Your task to perform on an android device: toggle javascript in the chrome app Image 0: 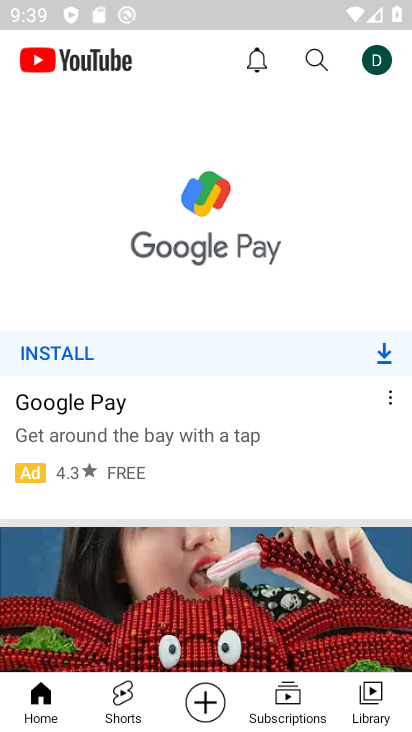
Step 0: press home button
Your task to perform on an android device: toggle javascript in the chrome app Image 1: 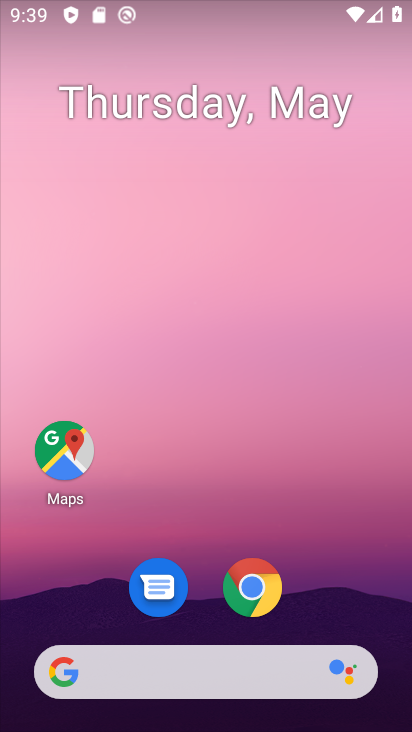
Step 1: click (299, 623)
Your task to perform on an android device: toggle javascript in the chrome app Image 2: 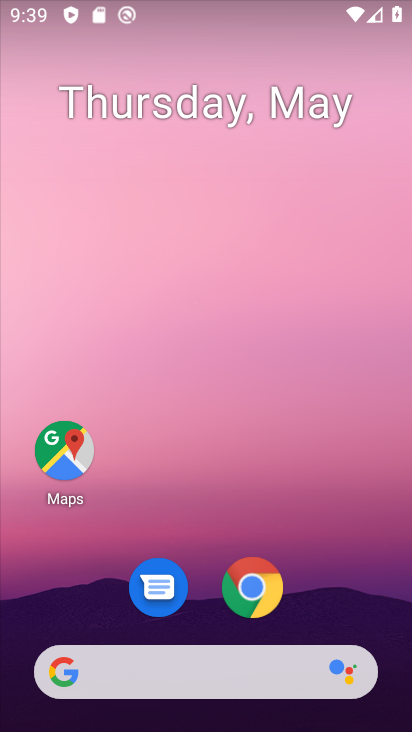
Step 2: drag from (299, 623) to (314, 35)
Your task to perform on an android device: toggle javascript in the chrome app Image 3: 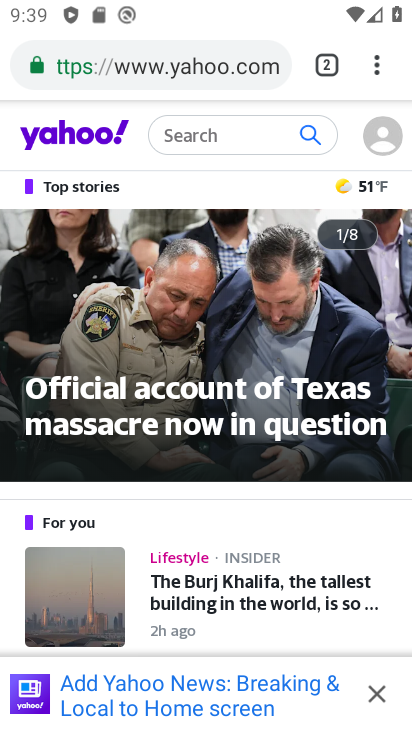
Step 3: click (377, 62)
Your task to perform on an android device: toggle javascript in the chrome app Image 4: 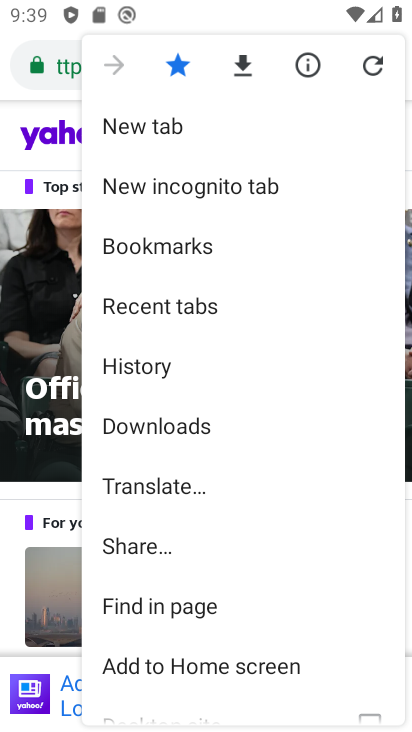
Step 4: drag from (214, 659) to (194, 169)
Your task to perform on an android device: toggle javascript in the chrome app Image 5: 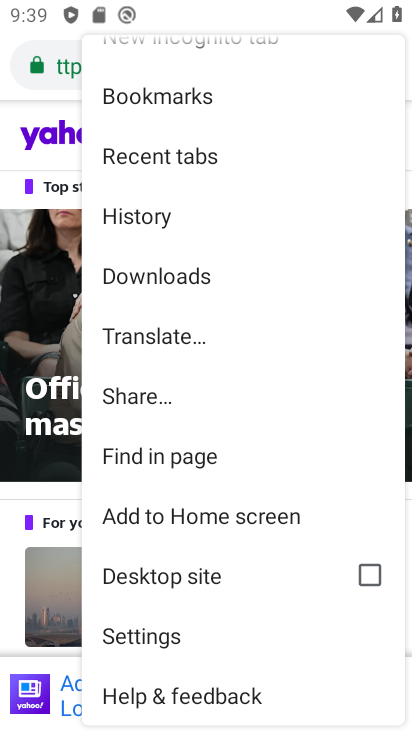
Step 5: click (141, 636)
Your task to perform on an android device: toggle javascript in the chrome app Image 6: 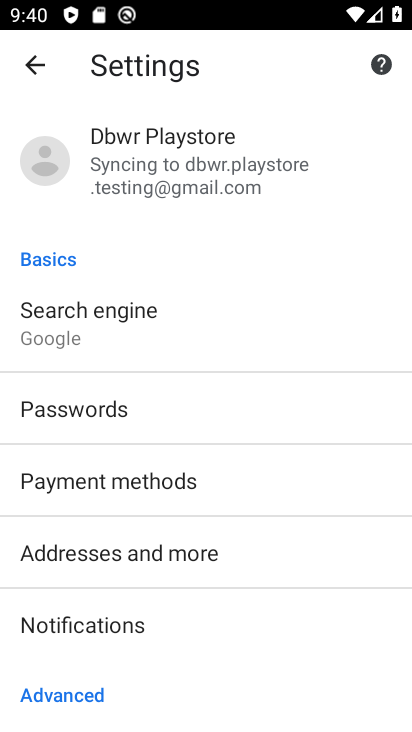
Step 6: drag from (201, 696) to (211, 364)
Your task to perform on an android device: toggle javascript in the chrome app Image 7: 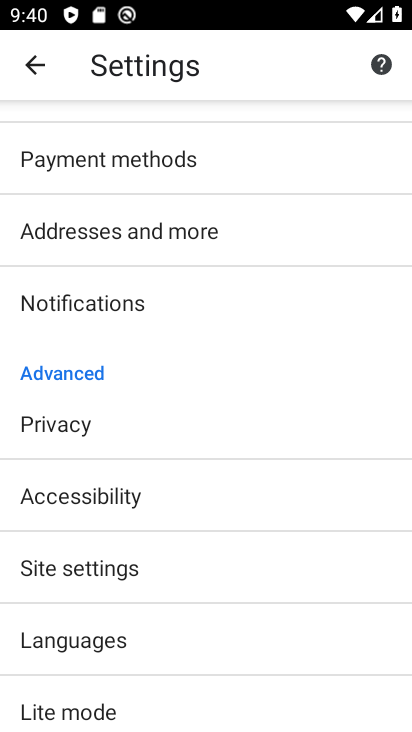
Step 7: click (113, 639)
Your task to perform on an android device: toggle javascript in the chrome app Image 8: 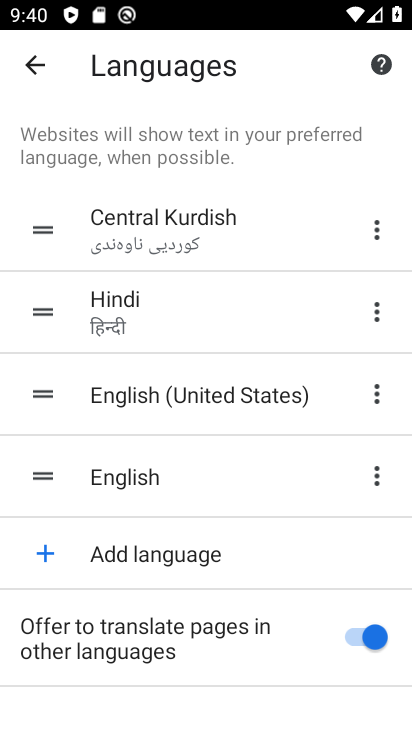
Step 8: click (379, 638)
Your task to perform on an android device: toggle javascript in the chrome app Image 9: 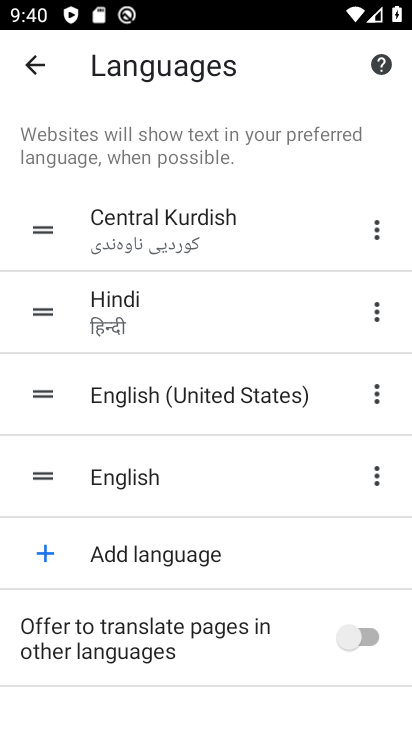
Step 9: click (379, 638)
Your task to perform on an android device: toggle javascript in the chrome app Image 10: 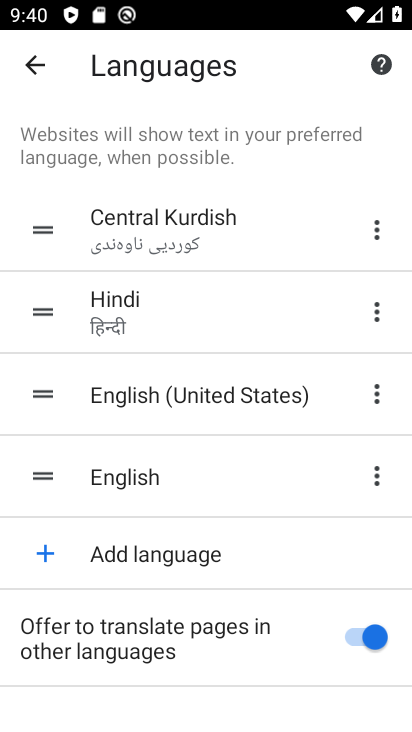
Step 10: click (379, 638)
Your task to perform on an android device: toggle javascript in the chrome app Image 11: 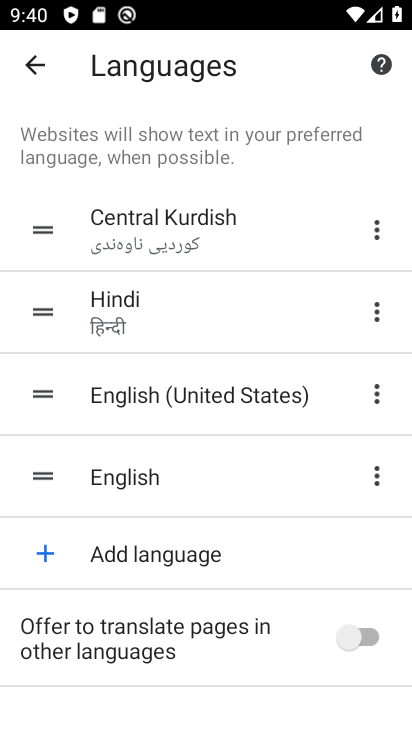
Step 11: task complete